Your task to perform on an android device: toggle improve location accuracy Image 0: 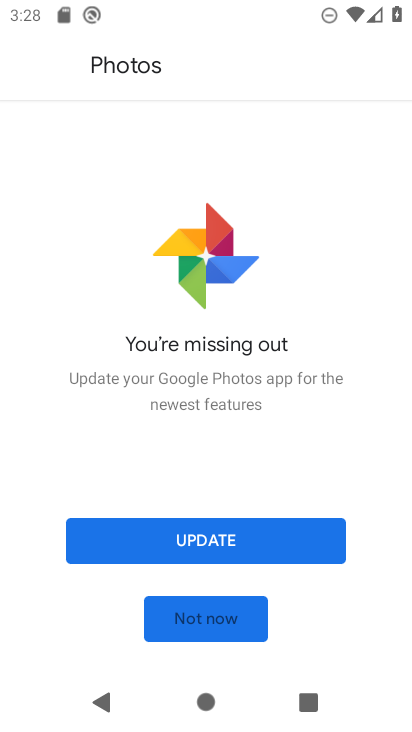
Step 0: press back button
Your task to perform on an android device: toggle improve location accuracy Image 1: 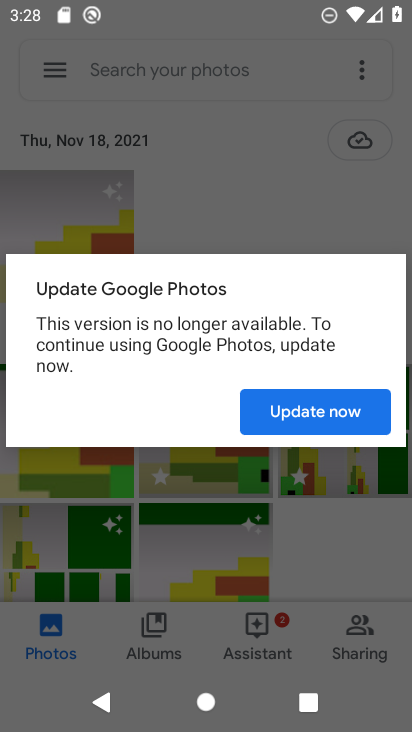
Step 1: press home button
Your task to perform on an android device: toggle improve location accuracy Image 2: 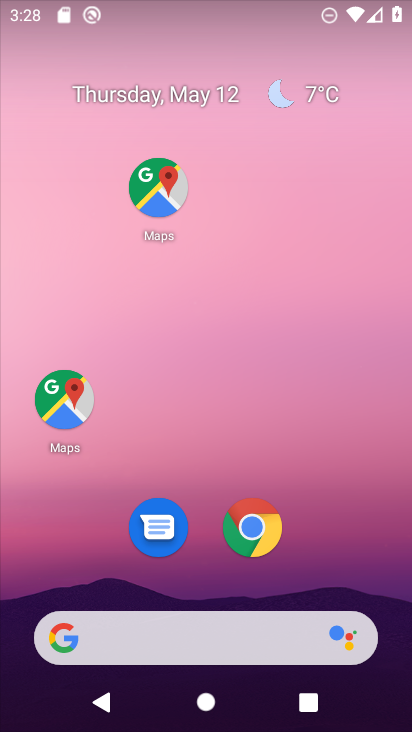
Step 2: drag from (235, 587) to (204, 8)
Your task to perform on an android device: toggle improve location accuracy Image 3: 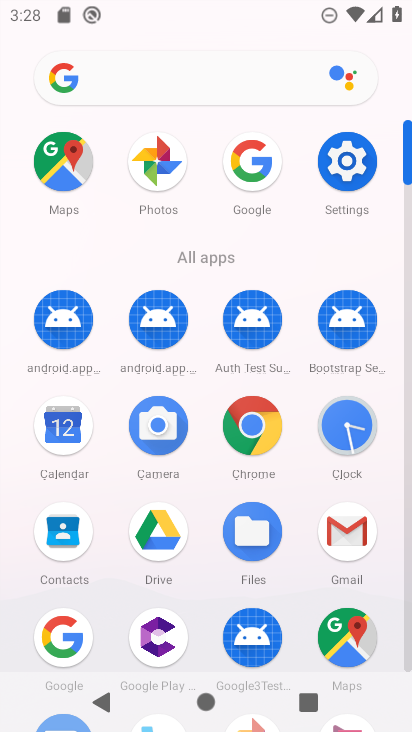
Step 3: click (260, 413)
Your task to perform on an android device: toggle improve location accuracy Image 4: 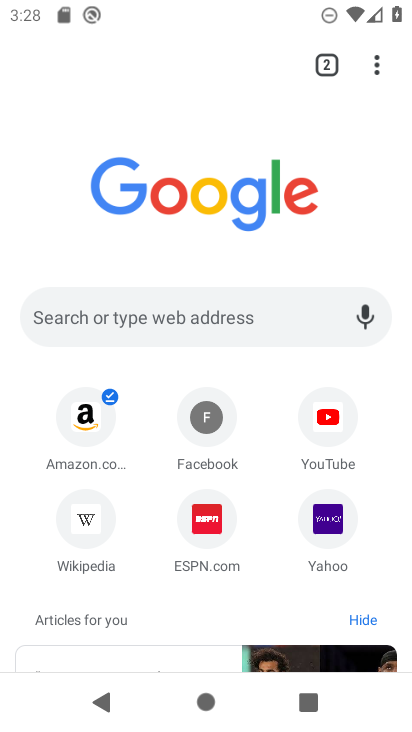
Step 4: press home button
Your task to perform on an android device: toggle improve location accuracy Image 5: 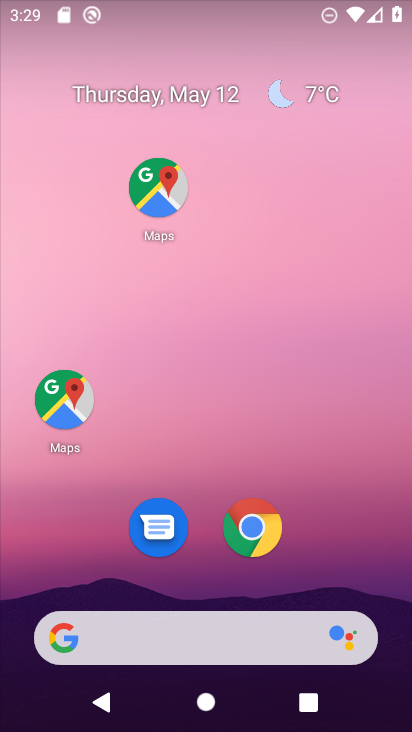
Step 5: drag from (199, 582) to (306, 0)
Your task to perform on an android device: toggle improve location accuracy Image 6: 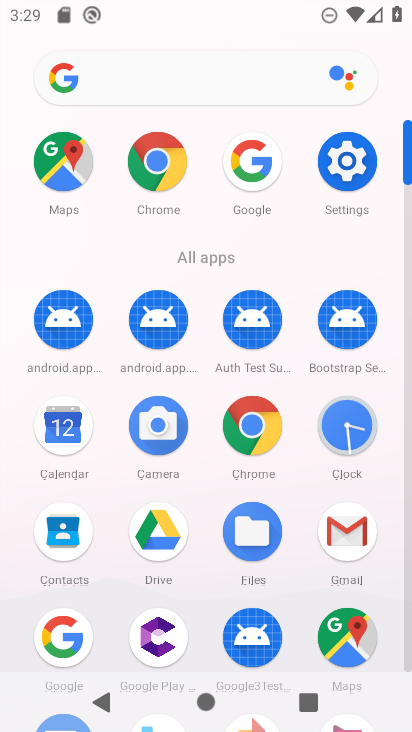
Step 6: click (344, 171)
Your task to perform on an android device: toggle improve location accuracy Image 7: 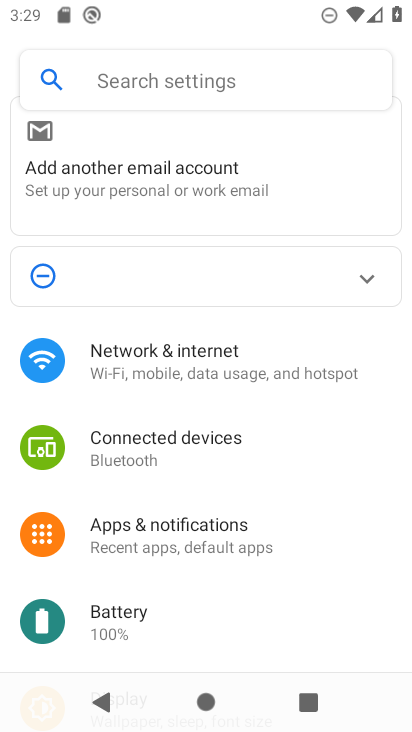
Step 7: drag from (225, 620) to (169, 71)
Your task to perform on an android device: toggle improve location accuracy Image 8: 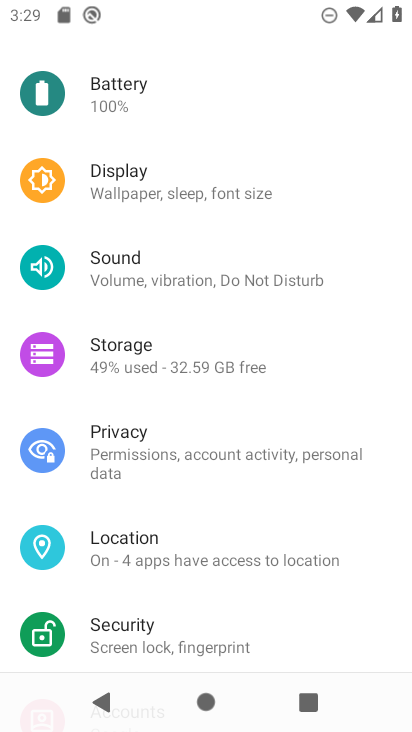
Step 8: click (140, 560)
Your task to perform on an android device: toggle improve location accuracy Image 9: 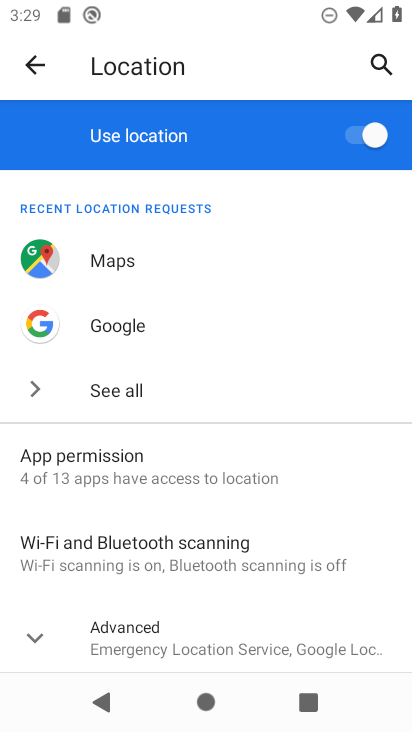
Step 9: click (169, 617)
Your task to perform on an android device: toggle improve location accuracy Image 10: 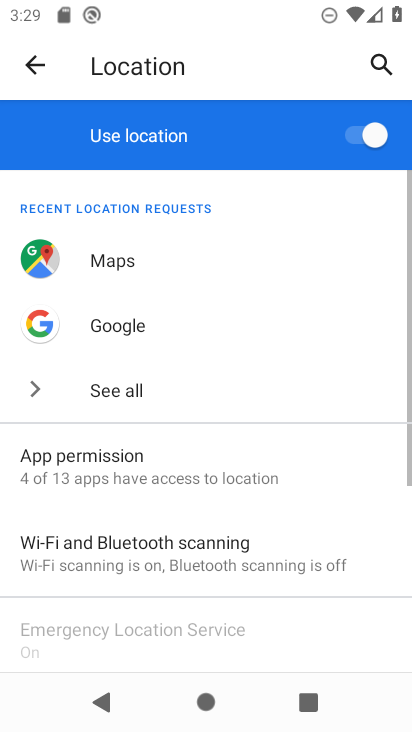
Step 10: drag from (169, 617) to (98, 183)
Your task to perform on an android device: toggle improve location accuracy Image 11: 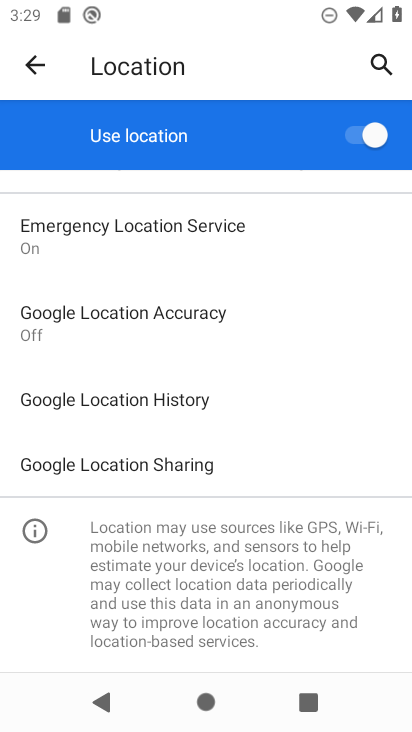
Step 11: click (150, 295)
Your task to perform on an android device: toggle improve location accuracy Image 12: 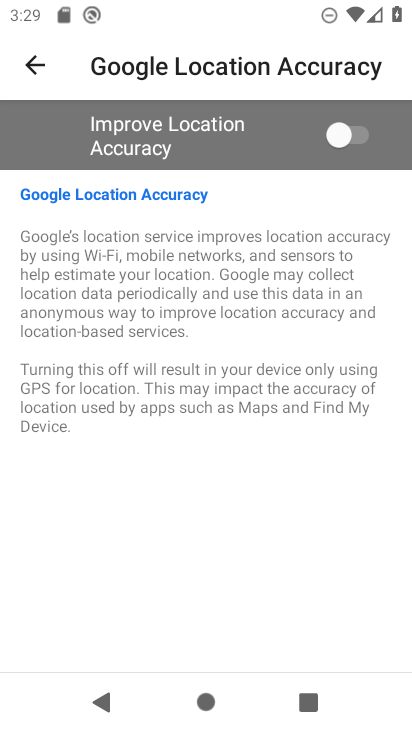
Step 12: click (338, 146)
Your task to perform on an android device: toggle improve location accuracy Image 13: 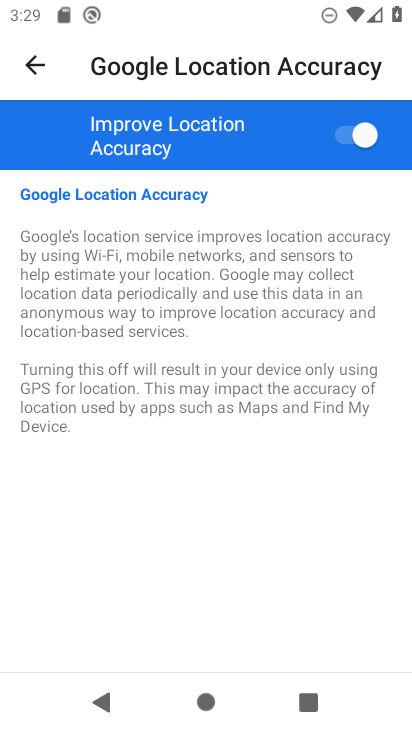
Step 13: task complete